Your task to perform on an android device: change the clock display to analog Image 0: 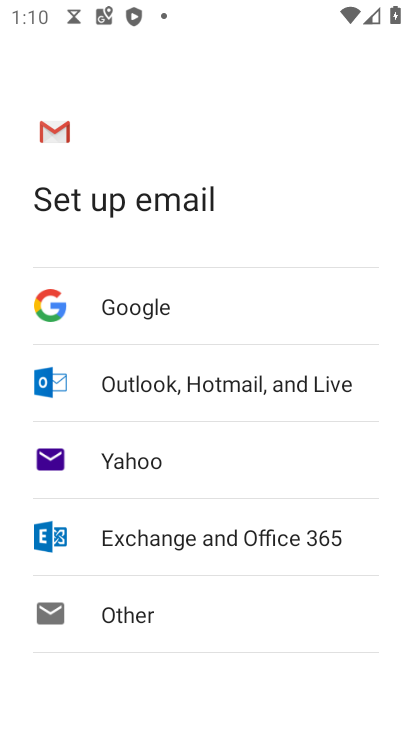
Step 0: press home button
Your task to perform on an android device: change the clock display to analog Image 1: 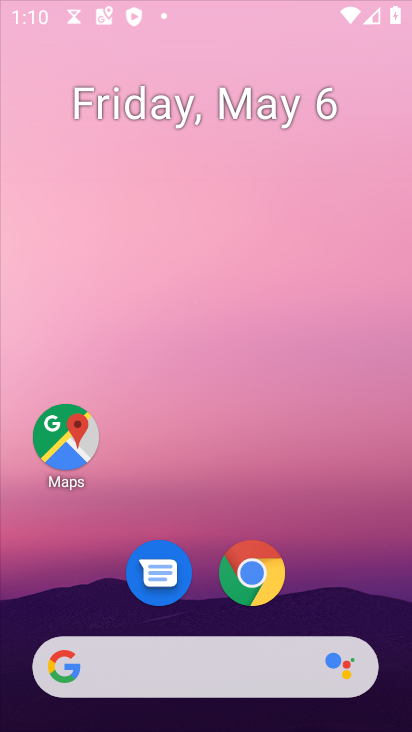
Step 1: drag from (284, 559) to (305, 183)
Your task to perform on an android device: change the clock display to analog Image 2: 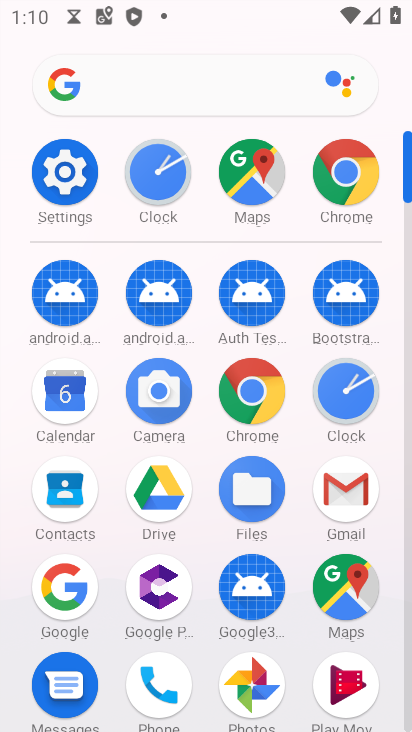
Step 2: click (356, 391)
Your task to perform on an android device: change the clock display to analog Image 3: 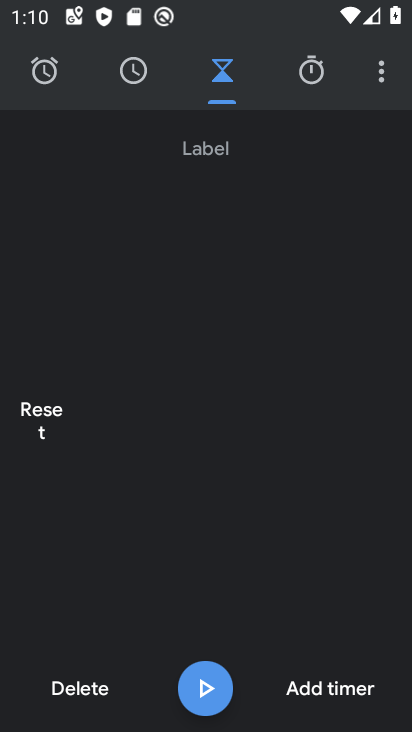
Step 3: click (374, 87)
Your task to perform on an android device: change the clock display to analog Image 4: 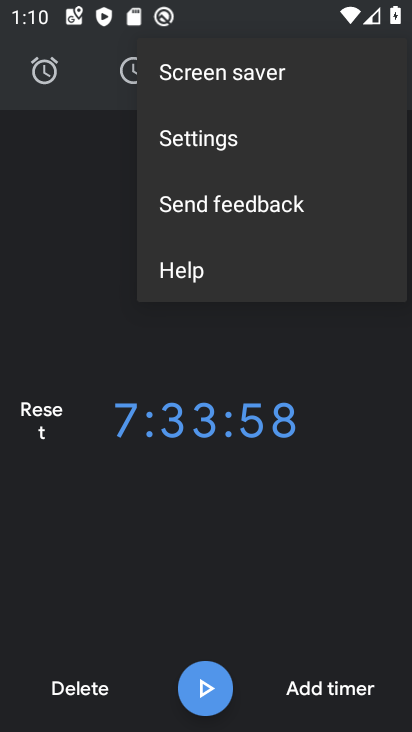
Step 4: click (239, 139)
Your task to perform on an android device: change the clock display to analog Image 5: 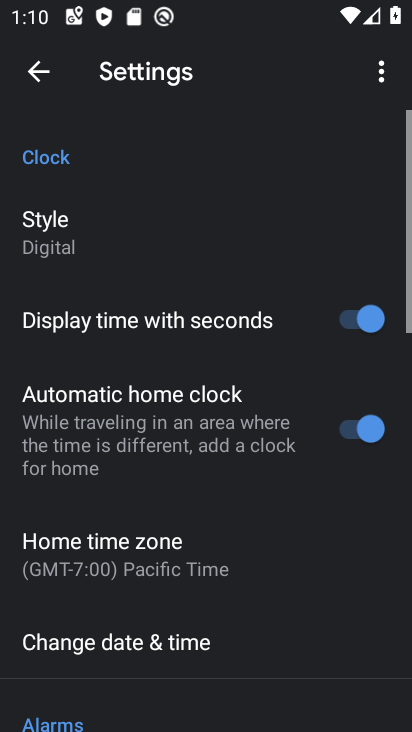
Step 5: click (61, 227)
Your task to perform on an android device: change the clock display to analog Image 6: 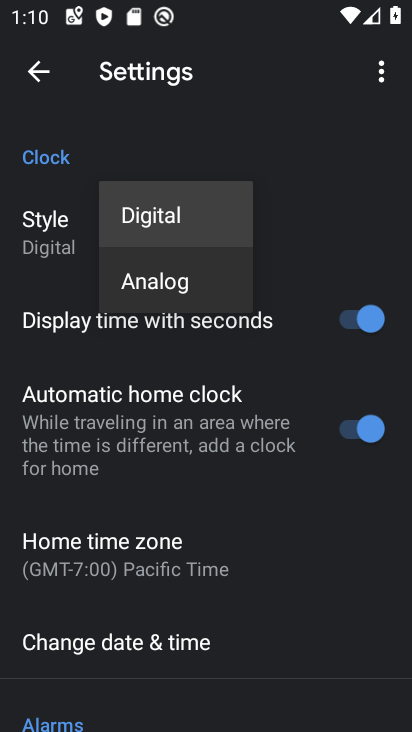
Step 6: click (159, 279)
Your task to perform on an android device: change the clock display to analog Image 7: 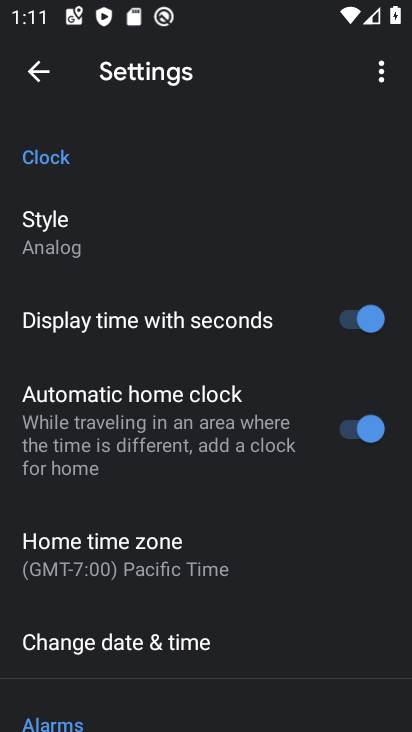
Step 7: task complete